Your task to perform on an android device: Open Amazon Image 0: 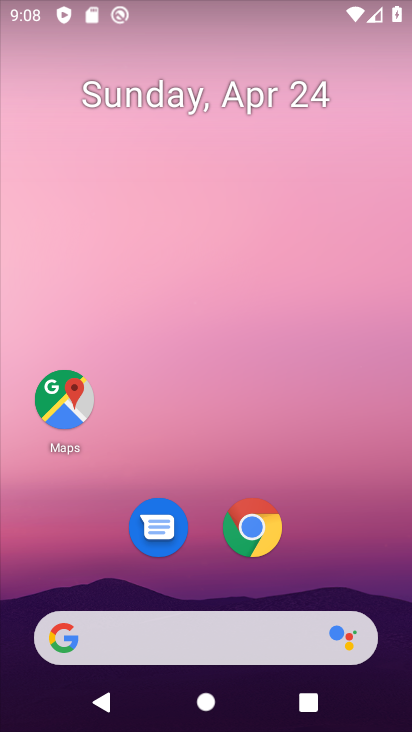
Step 0: drag from (325, 492) to (195, 76)
Your task to perform on an android device: Open Amazon Image 1: 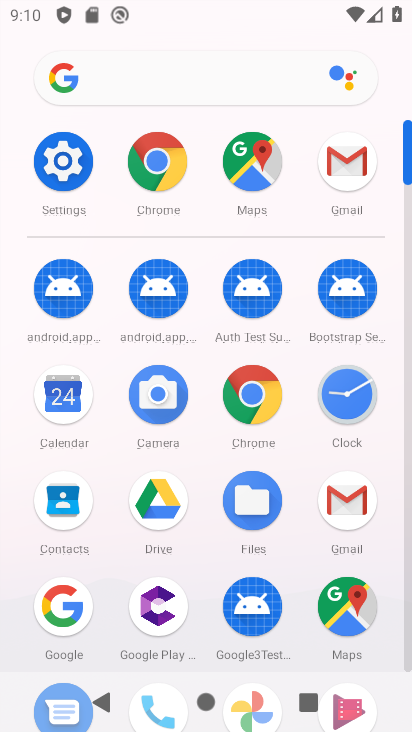
Step 1: click (175, 184)
Your task to perform on an android device: Open Amazon Image 2: 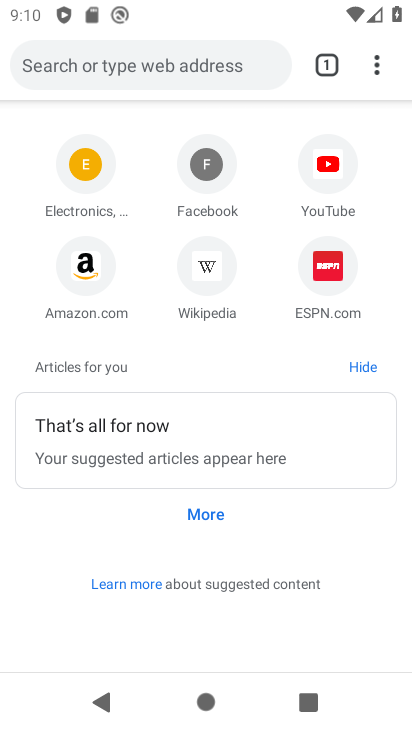
Step 2: click (86, 272)
Your task to perform on an android device: Open Amazon Image 3: 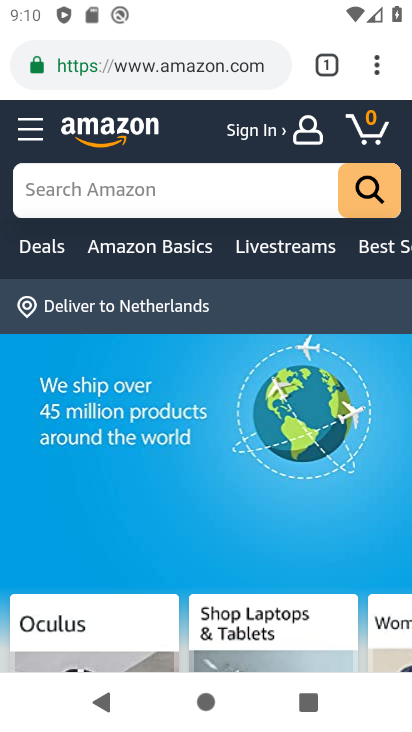
Step 3: task complete